Your task to perform on an android device: Open Reddit.com Image 0: 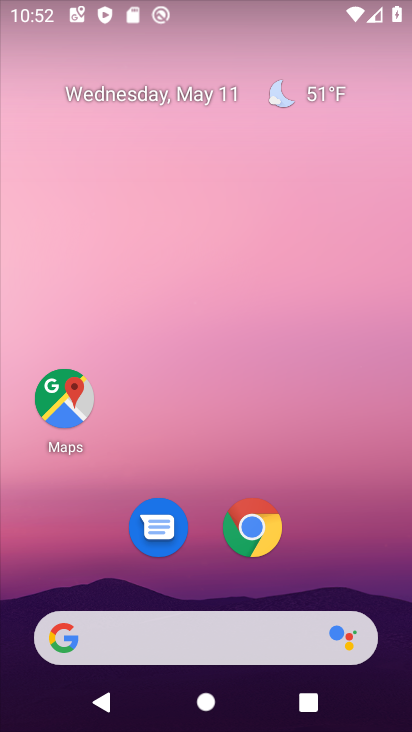
Step 0: click (250, 524)
Your task to perform on an android device: Open Reddit.com Image 1: 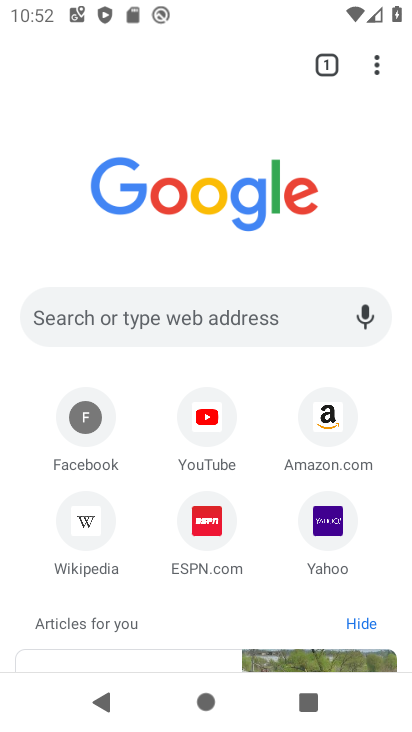
Step 1: click (228, 322)
Your task to perform on an android device: Open Reddit.com Image 2: 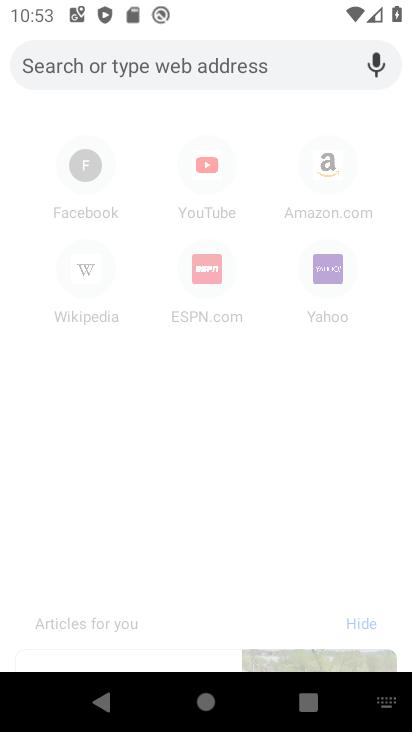
Step 2: type "Reddit.com"
Your task to perform on an android device: Open Reddit.com Image 3: 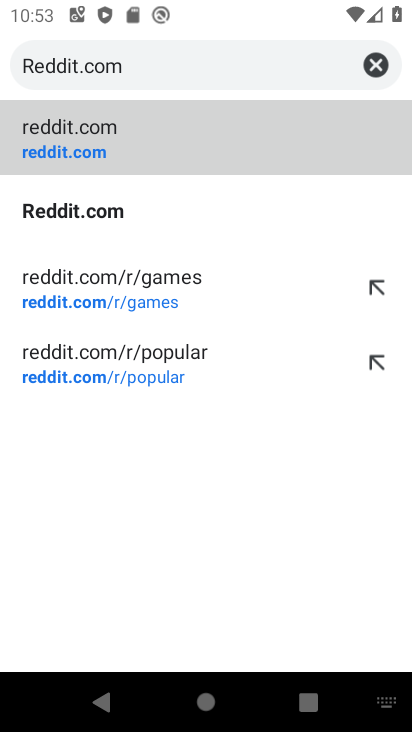
Step 3: click (79, 221)
Your task to perform on an android device: Open Reddit.com Image 4: 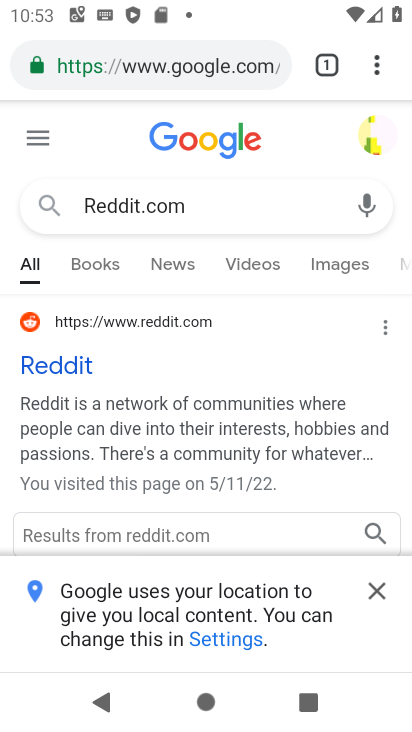
Step 4: click (59, 363)
Your task to perform on an android device: Open Reddit.com Image 5: 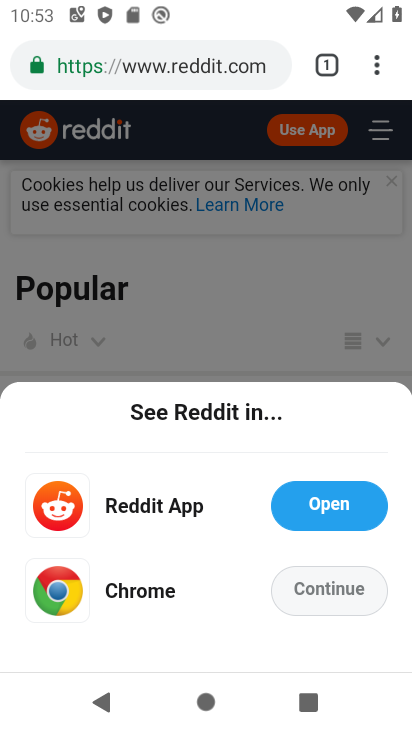
Step 5: task complete